Your task to perform on an android device: Open my contact list Image 0: 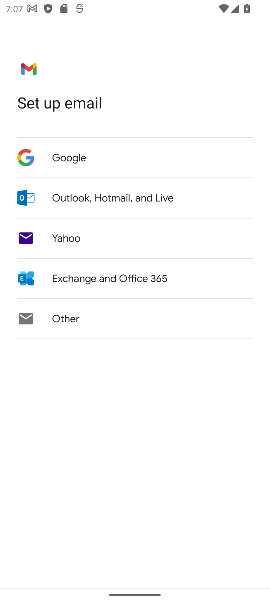
Step 0: press home button
Your task to perform on an android device: Open my contact list Image 1: 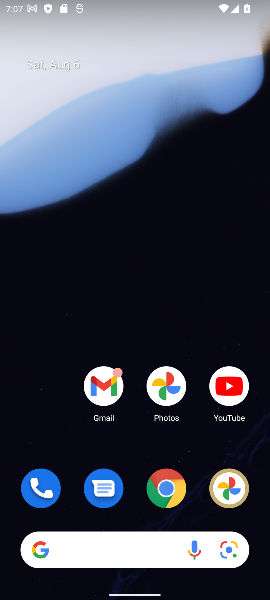
Step 1: drag from (138, 505) to (123, 145)
Your task to perform on an android device: Open my contact list Image 2: 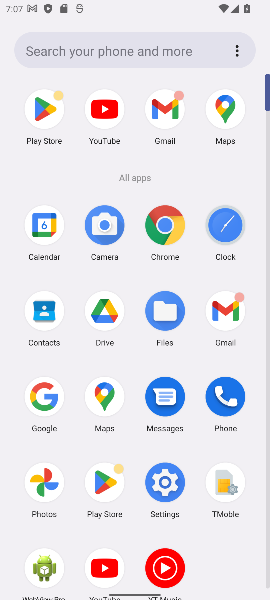
Step 2: drag from (228, 564) to (239, 166)
Your task to perform on an android device: Open my contact list Image 3: 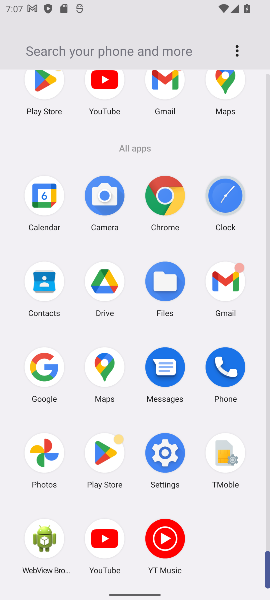
Step 3: click (217, 363)
Your task to perform on an android device: Open my contact list Image 4: 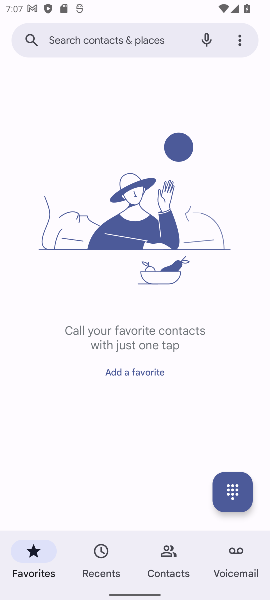
Step 4: task complete